Your task to perform on an android device: turn off location history Image 0: 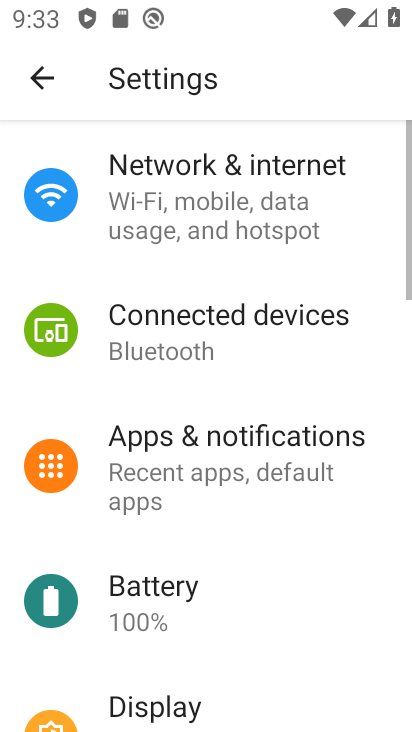
Step 0: press back button
Your task to perform on an android device: turn off location history Image 1: 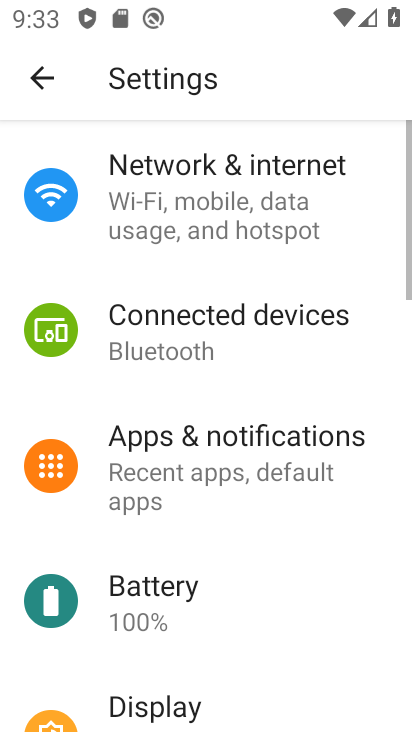
Step 1: press back button
Your task to perform on an android device: turn off location history Image 2: 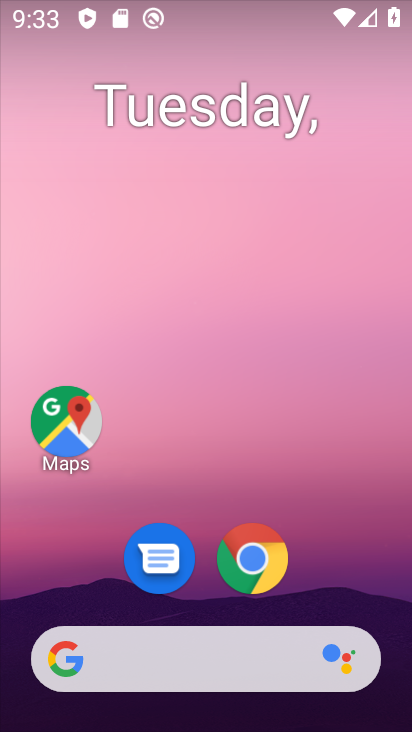
Step 2: drag from (302, 537) to (81, 149)
Your task to perform on an android device: turn off location history Image 3: 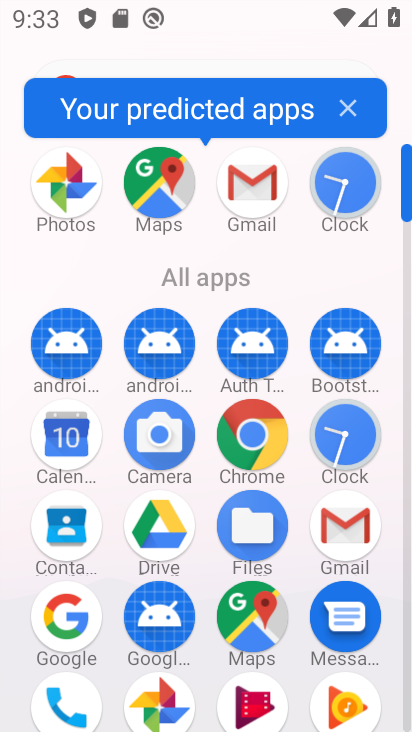
Step 3: click (162, 202)
Your task to perform on an android device: turn off location history Image 4: 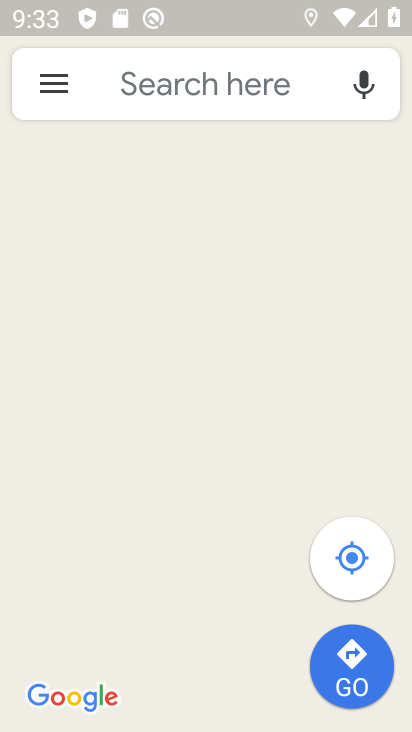
Step 4: click (106, 98)
Your task to perform on an android device: turn off location history Image 5: 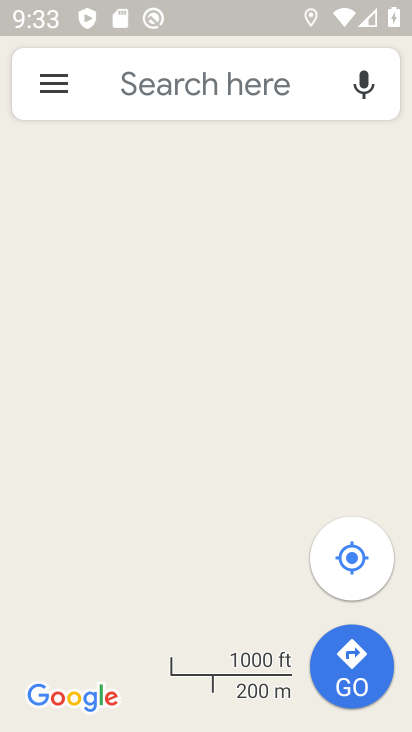
Step 5: click (106, 98)
Your task to perform on an android device: turn off location history Image 6: 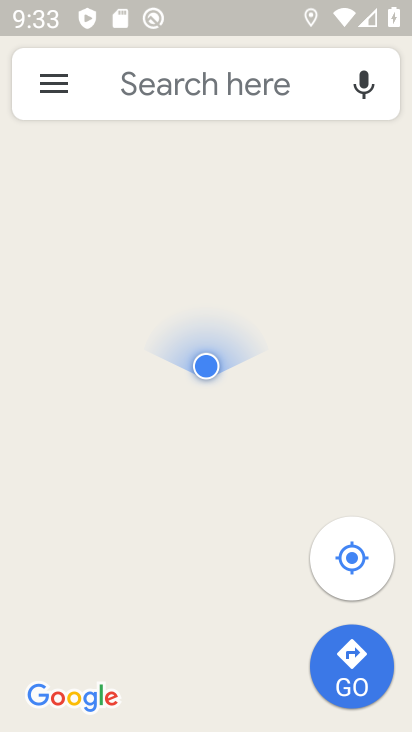
Step 6: click (133, 90)
Your task to perform on an android device: turn off location history Image 7: 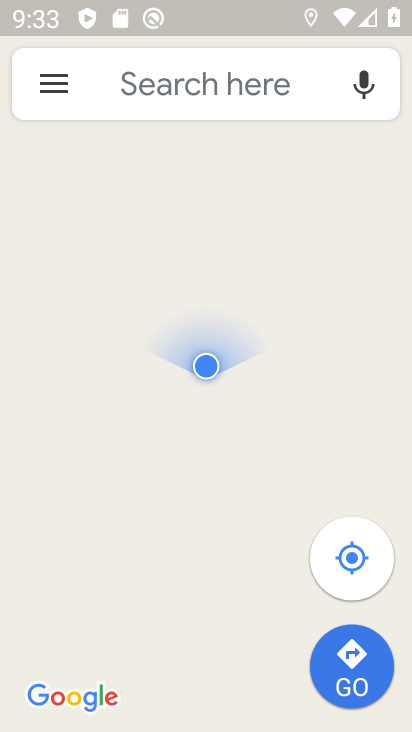
Step 7: click (133, 90)
Your task to perform on an android device: turn off location history Image 8: 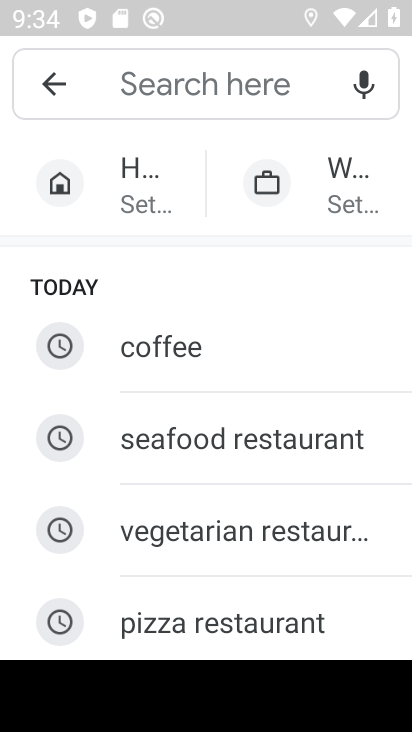
Step 8: click (44, 85)
Your task to perform on an android device: turn off location history Image 9: 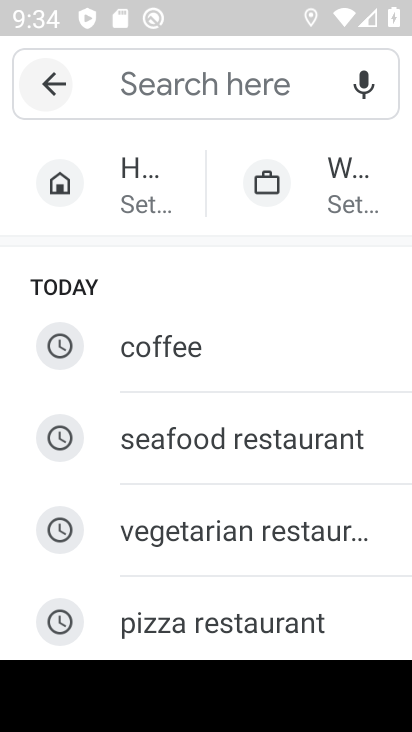
Step 9: click (45, 84)
Your task to perform on an android device: turn off location history Image 10: 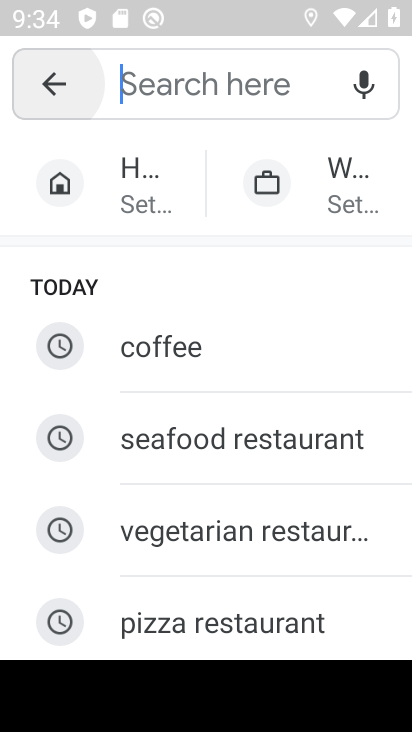
Step 10: click (47, 83)
Your task to perform on an android device: turn off location history Image 11: 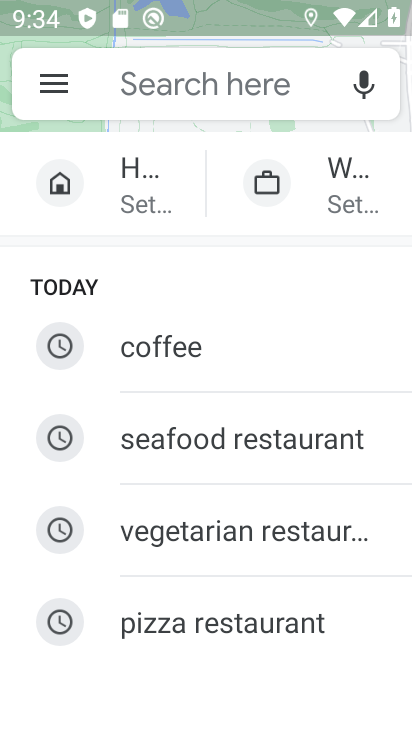
Step 11: click (49, 81)
Your task to perform on an android device: turn off location history Image 12: 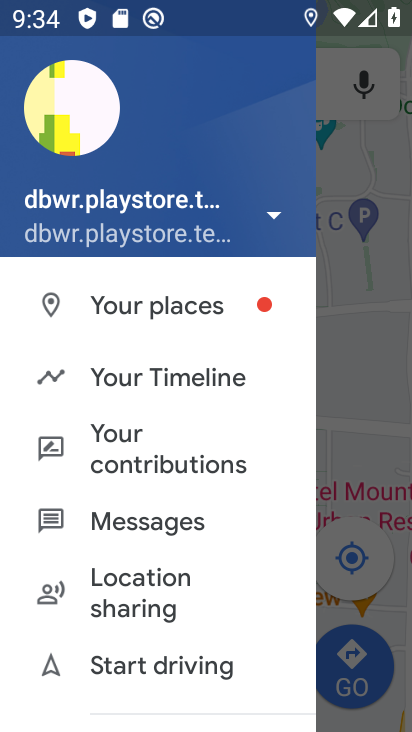
Step 12: click (201, 378)
Your task to perform on an android device: turn off location history Image 13: 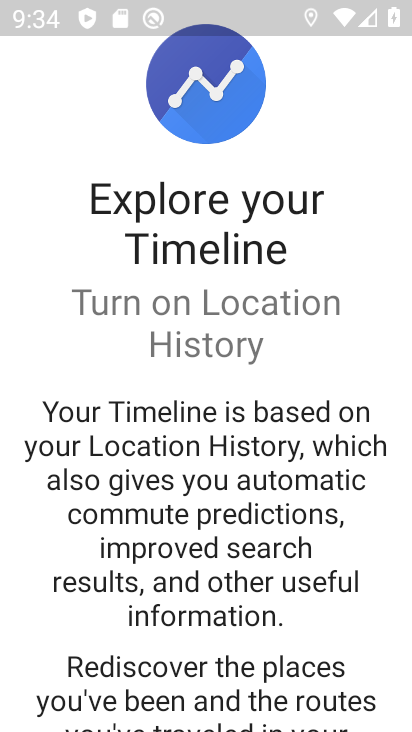
Step 13: click (274, 378)
Your task to perform on an android device: turn off location history Image 14: 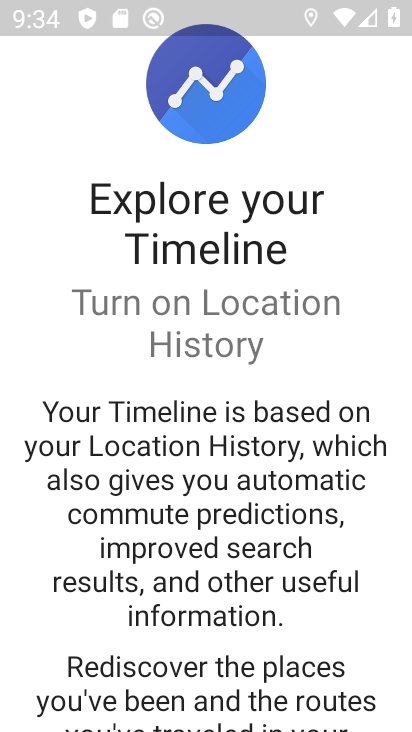
Step 14: drag from (240, 356) to (253, 614)
Your task to perform on an android device: turn off location history Image 15: 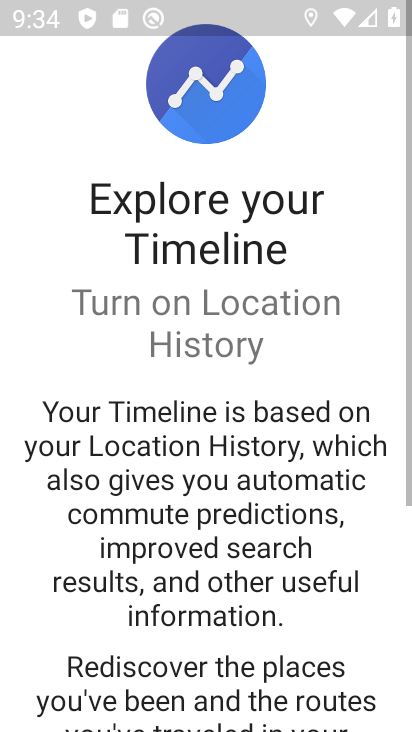
Step 15: drag from (253, 439) to (211, 97)
Your task to perform on an android device: turn off location history Image 16: 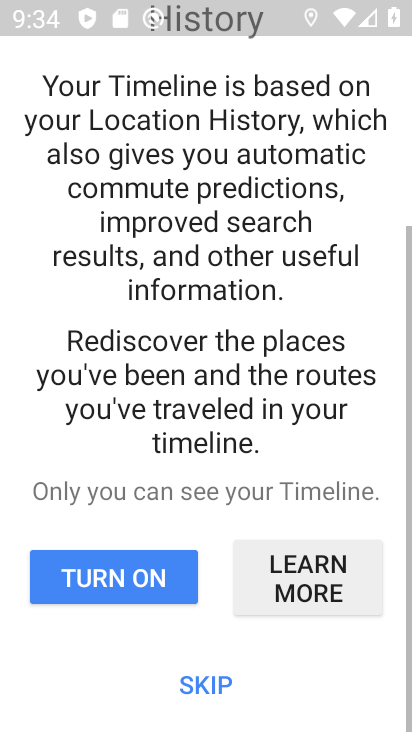
Step 16: drag from (285, 376) to (244, 82)
Your task to perform on an android device: turn off location history Image 17: 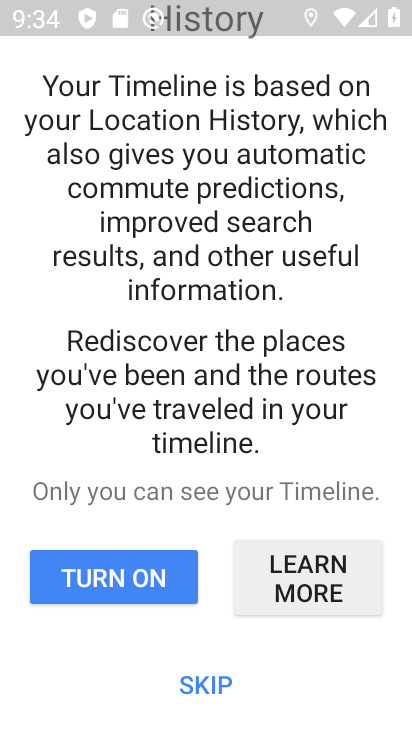
Step 17: click (140, 580)
Your task to perform on an android device: turn off location history Image 18: 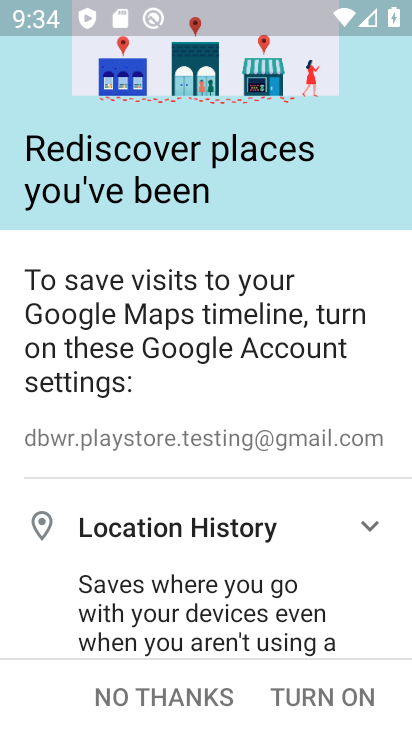
Step 18: click (316, 673)
Your task to perform on an android device: turn off location history Image 19: 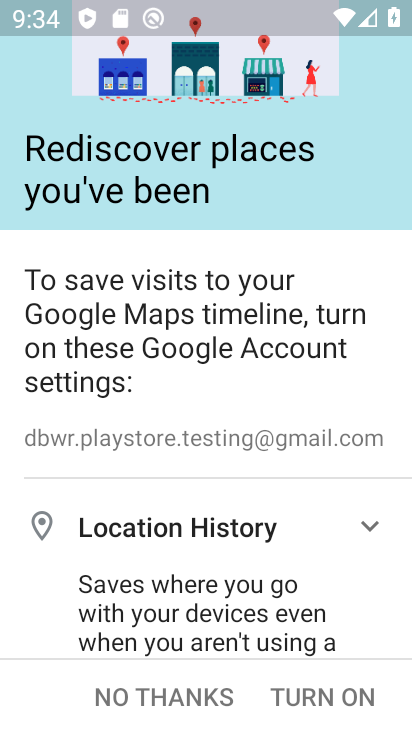
Step 19: click (316, 677)
Your task to perform on an android device: turn off location history Image 20: 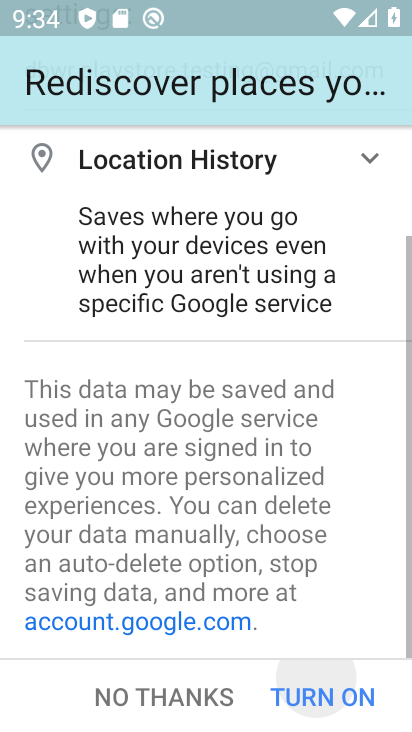
Step 20: click (317, 690)
Your task to perform on an android device: turn off location history Image 21: 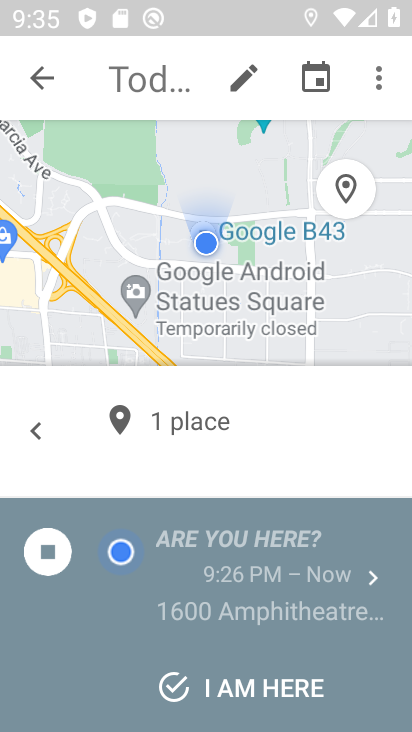
Step 21: click (374, 79)
Your task to perform on an android device: turn off location history Image 22: 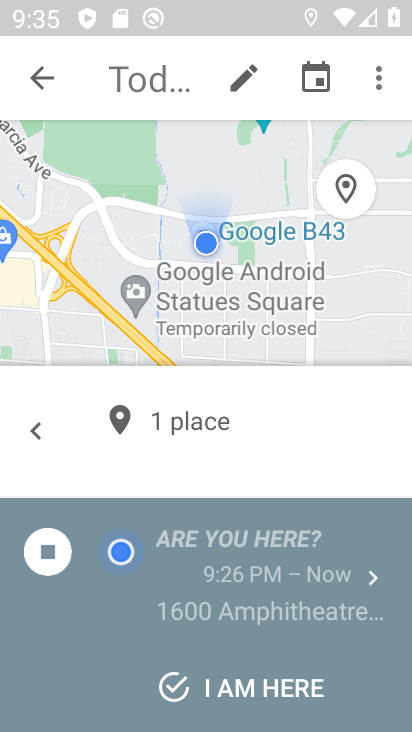
Step 22: click (374, 79)
Your task to perform on an android device: turn off location history Image 23: 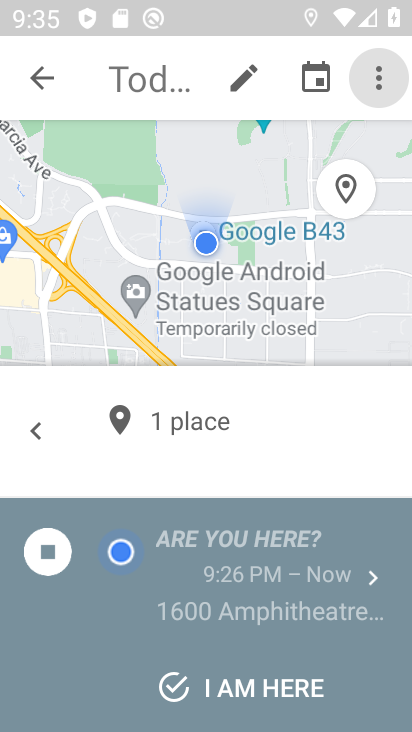
Step 23: click (375, 79)
Your task to perform on an android device: turn off location history Image 24: 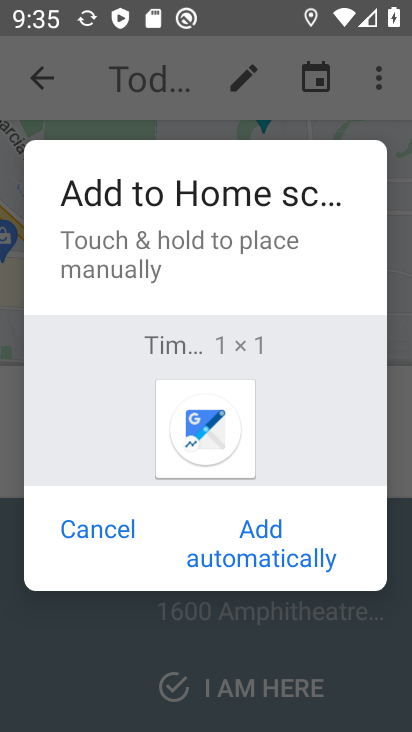
Step 24: click (108, 525)
Your task to perform on an android device: turn off location history Image 25: 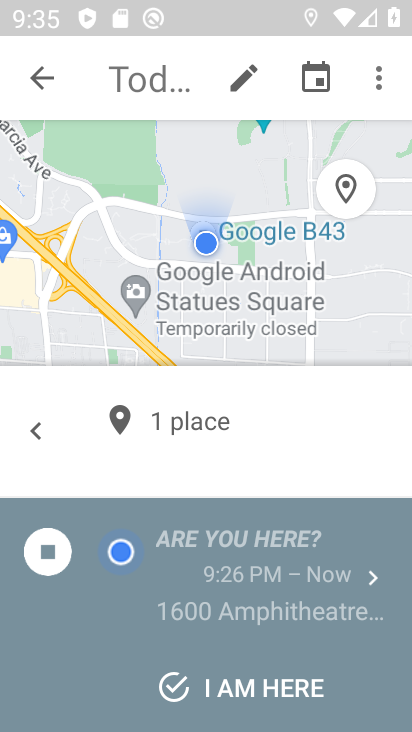
Step 25: click (373, 80)
Your task to perform on an android device: turn off location history Image 26: 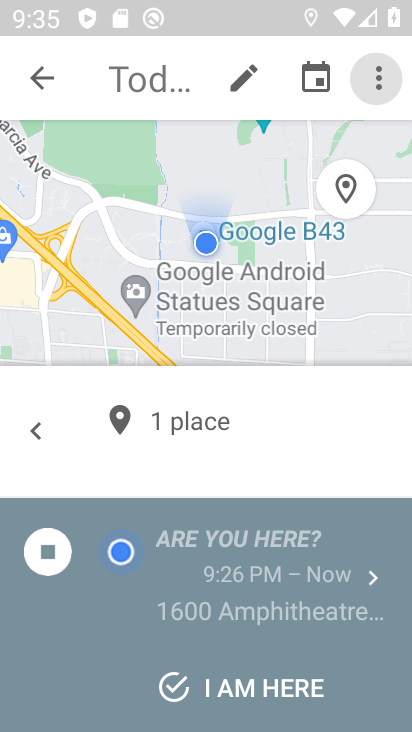
Step 26: click (374, 79)
Your task to perform on an android device: turn off location history Image 27: 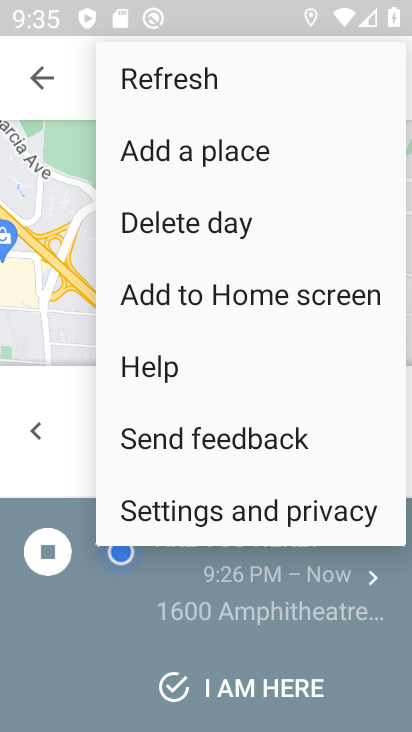
Step 27: click (227, 510)
Your task to perform on an android device: turn off location history Image 28: 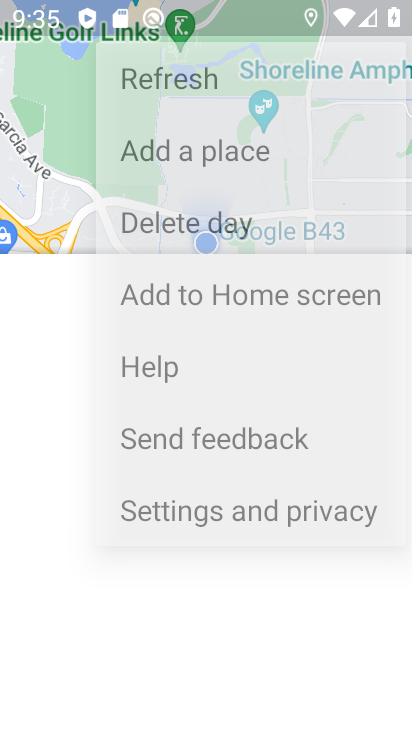
Step 28: click (235, 510)
Your task to perform on an android device: turn off location history Image 29: 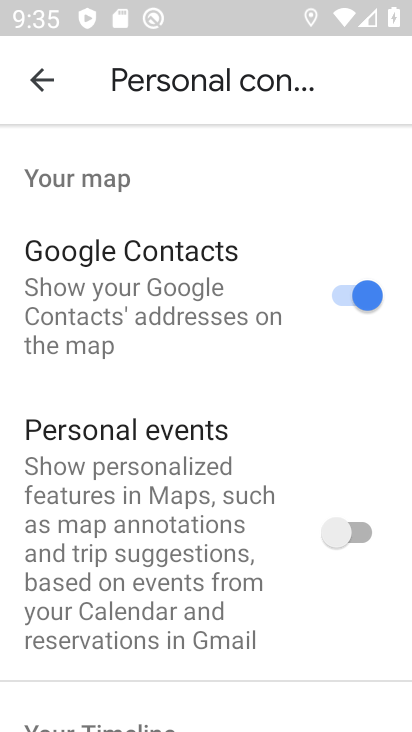
Step 29: drag from (249, 523) to (199, 265)
Your task to perform on an android device: turn off location history Image 30: 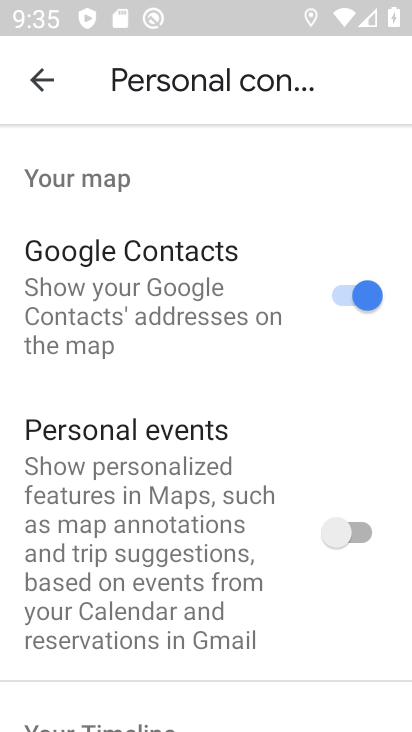
Step 30: drag from (289, 330) to (290, 295)
Your task to perform on an android device: turn off location history Image 31: 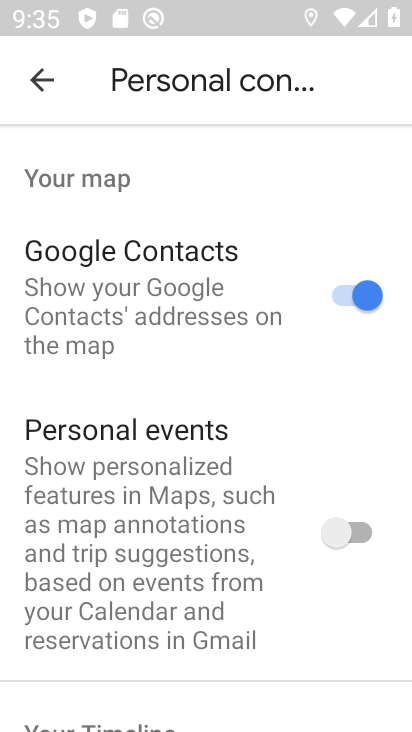
Step 31: drag from (263, 461) to (183, 87)
Your task to perform on an android device: turn off location history Image 32: 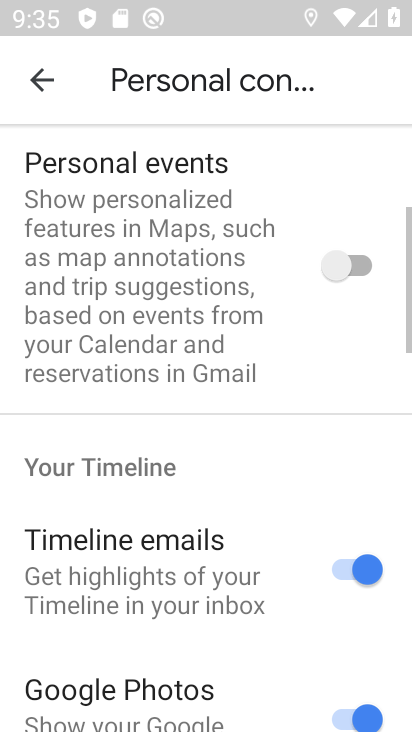
Step 32: drag from (228, 388) to (183, 207)
Your task to perform on an android device: turn off location history Image 33: 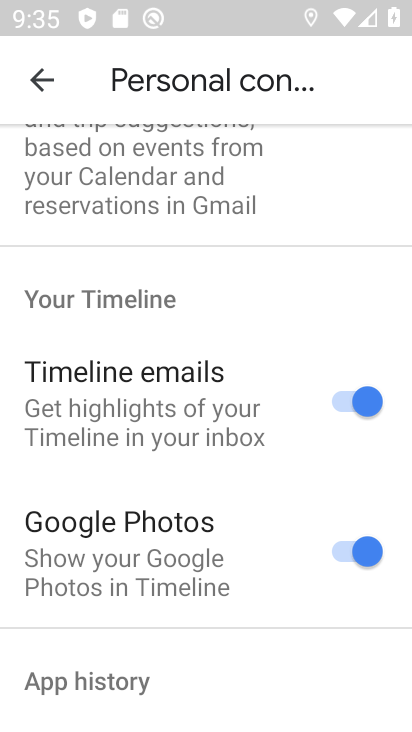
Step 33: drag from (225, 436) to (169, 60)
Your task to perform on an android device: turn off location history Image 34: 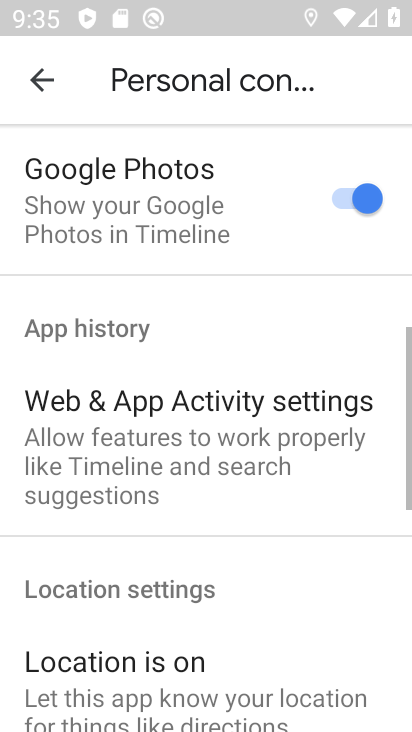
Step 34: drag from (241, 503) to (184, 126)
Your task to perform on an android device: turn off location history Image 35: 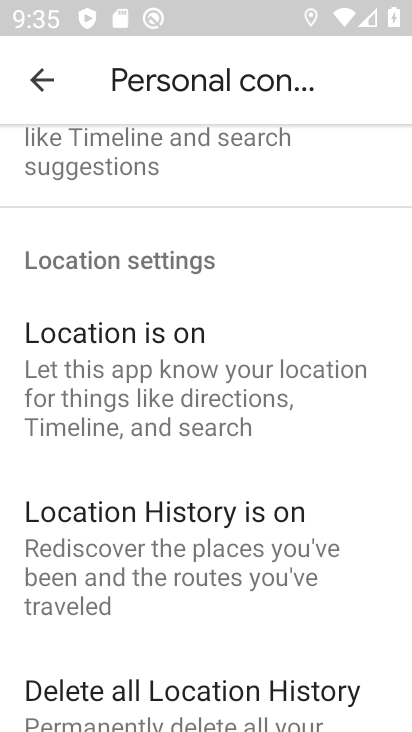
Step 35: click (144, 174)
Your task to perform on an android device: turn off location history Image 36: 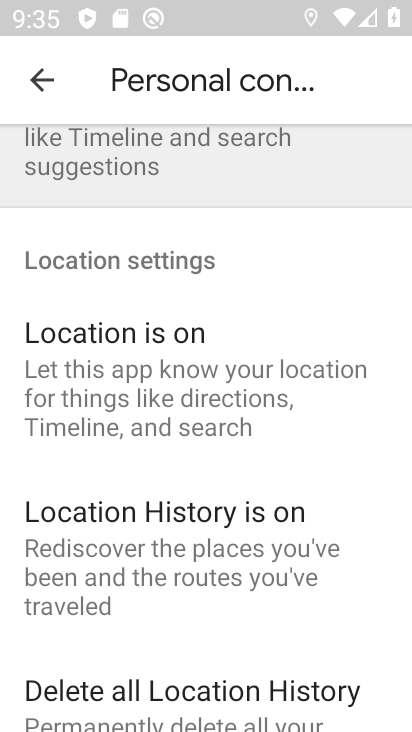
Step 36: click (216, 309)
Your task to perform on an android device: turn off location history Image 37: 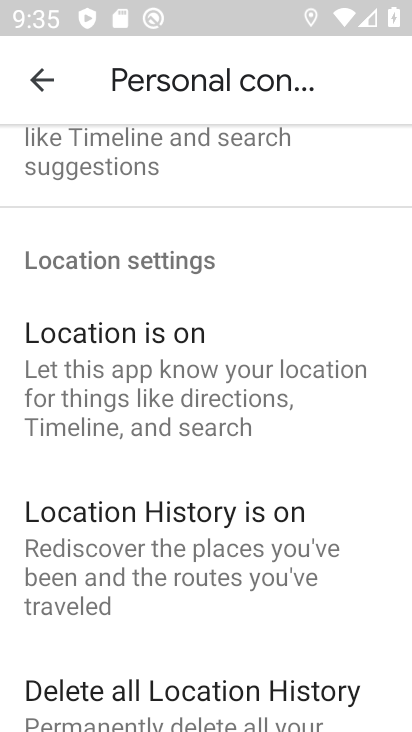
Step 37: click (151, 513)
Your task to perform on an android device: turn off location history Image 38: 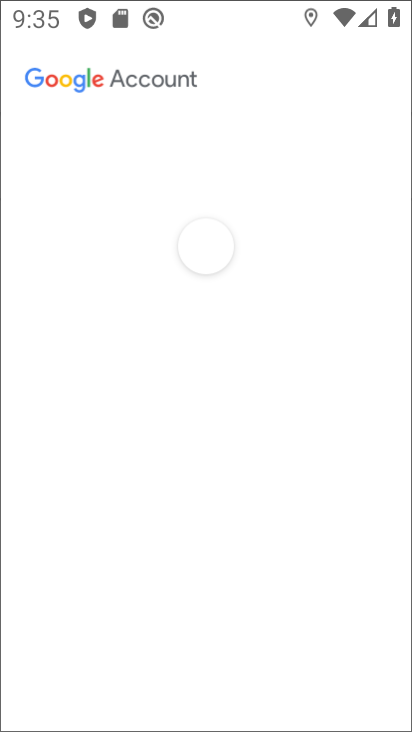
Step 38: click (153, 513)
Your task to perform on an android device: turn off location history Image 39: 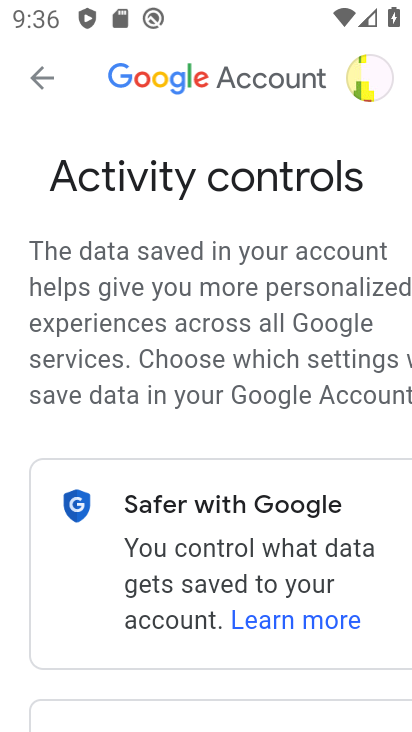
Step 39: drag from (194, 438) to (160, 225)
Your task to perform on an android device: turn off location history Image 40: 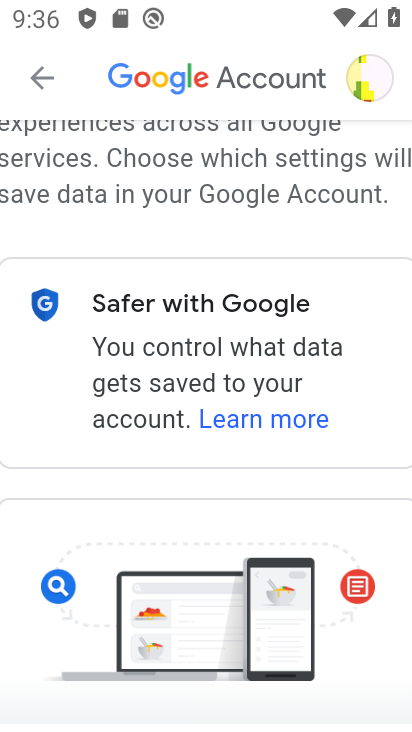
Step 40: drag from (260, 379) to (227, 145)
Your task to perform on an android device: turn off location history Image 41: 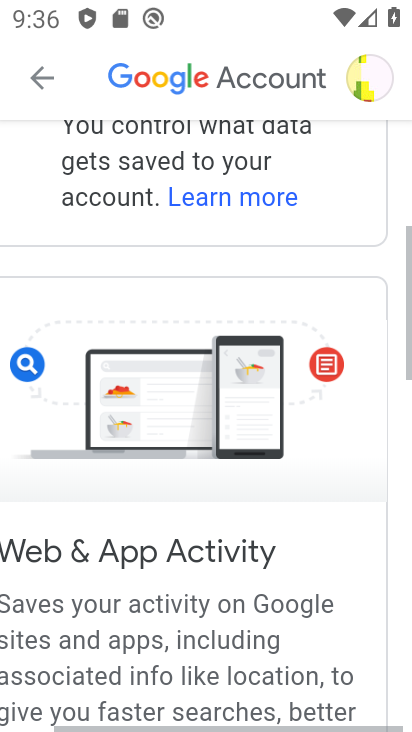
Step 41: drag from (254, 525) to (251, 231)
Your task to perform on an android device: turn off location history Image 42: 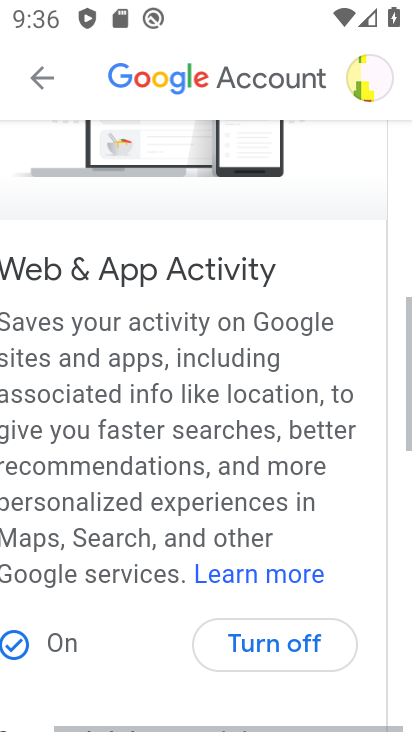
Step 42: drag from (257, 543) to (136, 55)
Your task to perform on an android device: turn off location history Image 43: 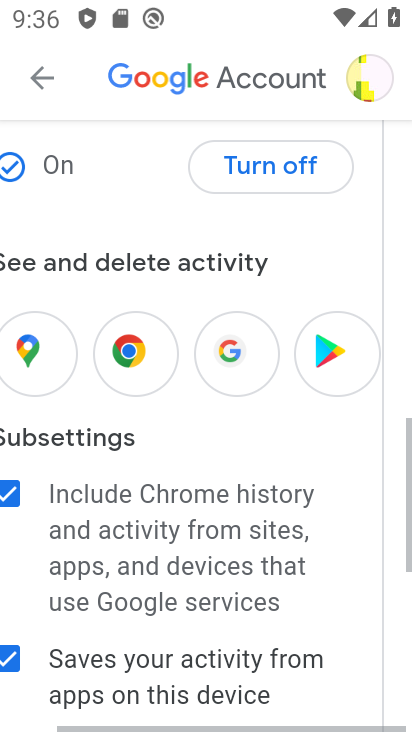
Step 43: drag from (199, 477) to (199, 178)
Your task to perform on an android device: turn off location history Image 44: 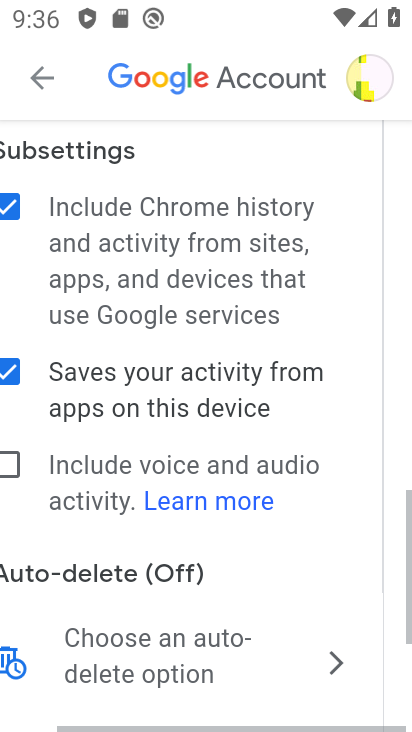
Step 44: drag from (248, 479) to (245, 196)
Your task to perform on an android device: turn off location history Image 45: 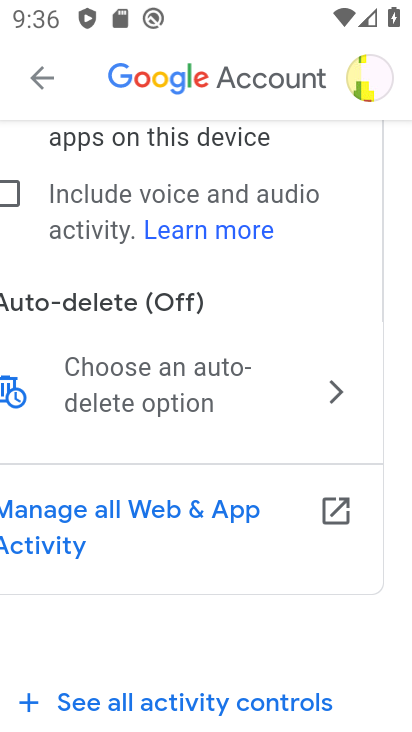
Step 45: drag from (202, 562) to (148, 138)
Your task to perform on an android device: turn off location history Image 46: 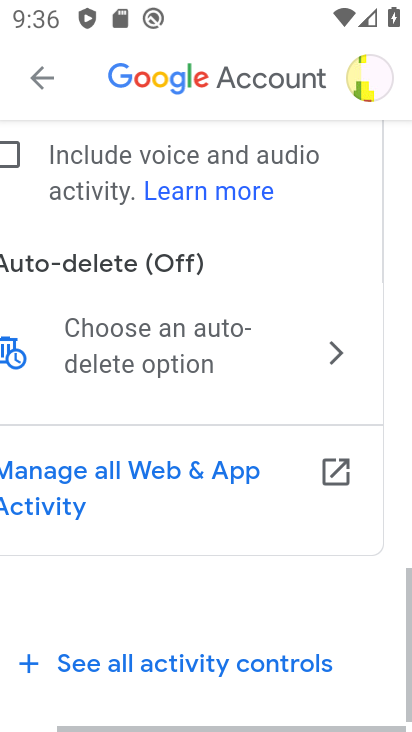
Step 46: drag from (120, 478) to (15, 377)
Your task to perform on an android device: turn off location history Image 47: 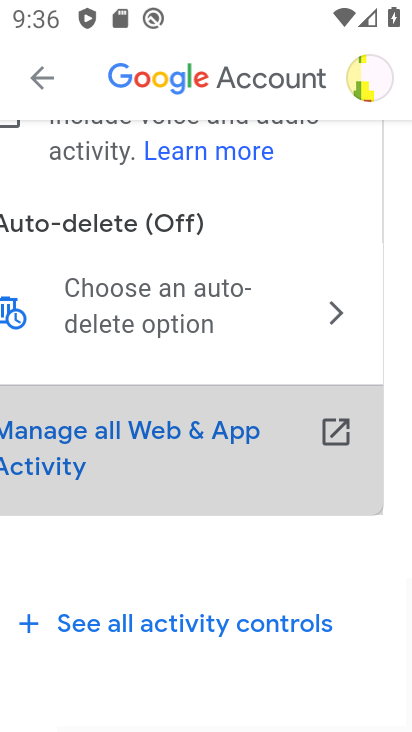
Step 47: click (206, 357)
Your task to perform on an android device: turn off location history Image 48: 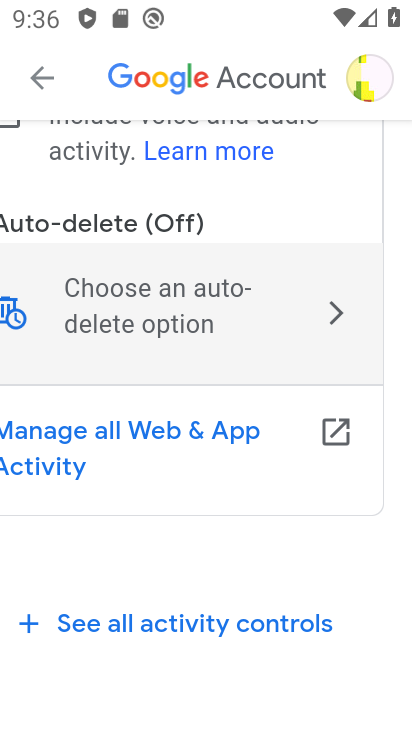
Step 48: task complete